Your task to perform on an android device: open app "Grab" (install if not already installed) and enter user name: "interspersion@gmail.com" and password: "aristocrats" Image 0: 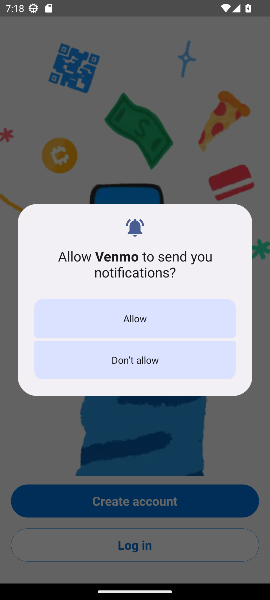
Step 0: press home button
Your task to perform on an android device: open app "Grab" (install if not already installed) and enter user name: "interspersion@gmail.com" and password: "aristocrats" Image 1: 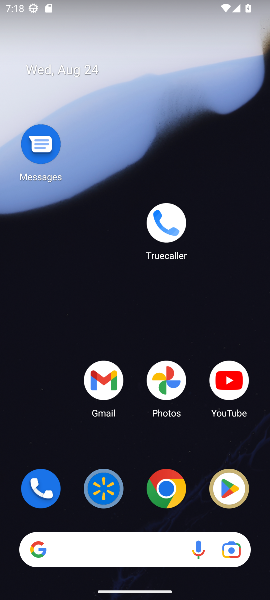
Step 1: click (234, 497)
Your task to perform on an android device: open app "Grab" (install if not already installed) and enter user name: "interspersion@gmail.com" and password: "aristocrats" Image 2: 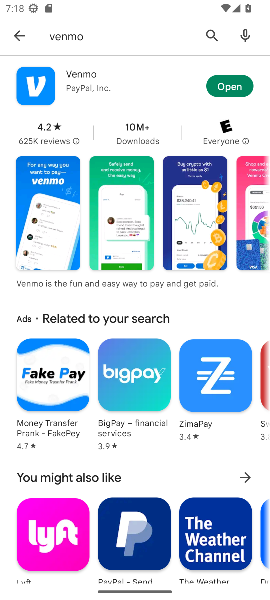
Step 2: click (221, 43)
Your task to perform on an android device: open app "Grab" (install if not already installed) and enter user name: "interspersion@gmail.com" and password: "aristocrats" Image 3: 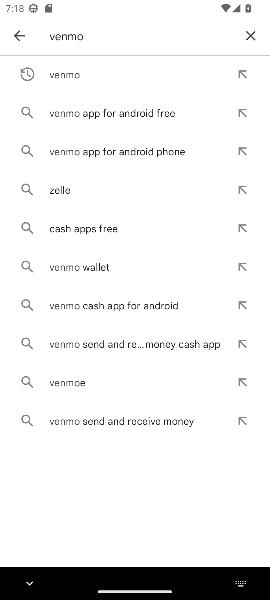
Step 3: click (246, 31)
Your task to perform on an android device: open app "Grab" (install if not already installed) and enter user name: "interspersion@gmail.com" and password: "aristocrats" Image 4: 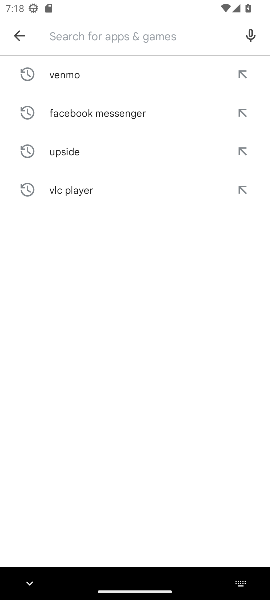
Step 4: type "grab"
Your task to perform on an android device: open app "Grab" (install if not already installed) and enter user name: "interspersion@gmail.com" and password: "aristocrats" Image 5: 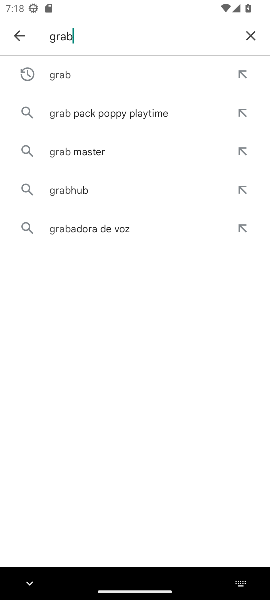
Step 5: click (126, 85)
Your task to perform on an android device: open app "Grab" (install if not already installed) and enter user name: "interspersion@gmail.com" and password: "aristocrats" Image 6: 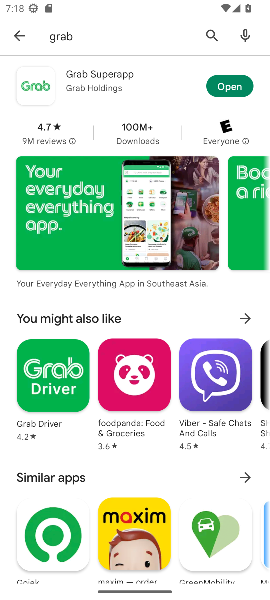
Step 6: click (229, 82)
Your task to perform on an android device: open app "Grab" (install if not already installed) and enter user name: "interspersion@gmail.com" and password: "aristocrats" Image 7: 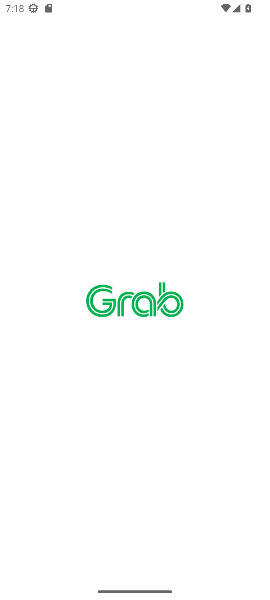
Step 7: task complete